Your task to perform on an android device: turn smart compose on in the gmail app Image 0: 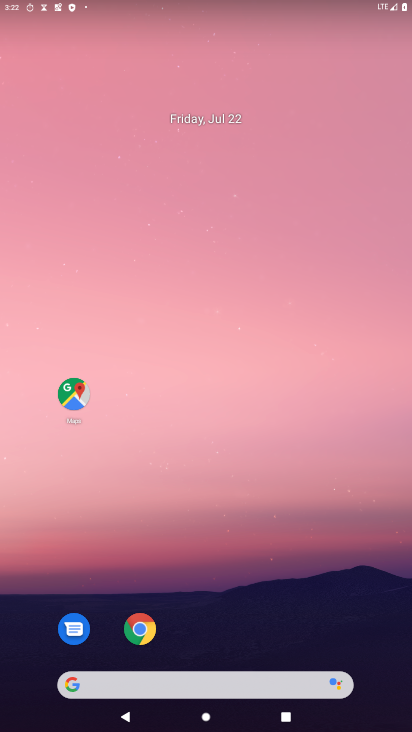
Step 0: drag from (224, 591) to (214, 14)
Your task to perform on an android device: turn smart compose on in the gmail app Image 1: 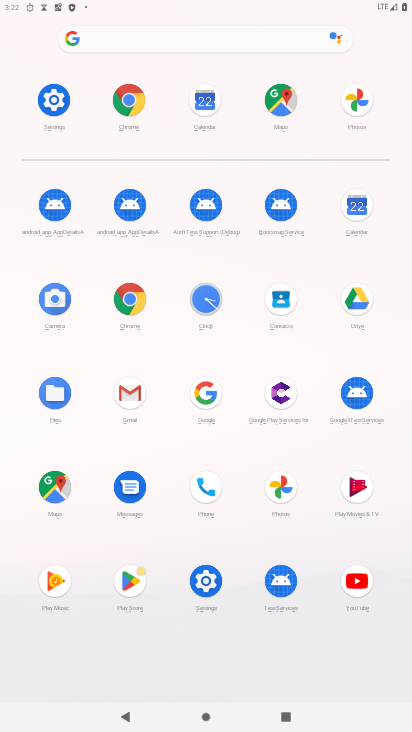
Step 1: click (138, 398)
Your task to perform on an android device: turn smart compose on in the gmail app Image 2: 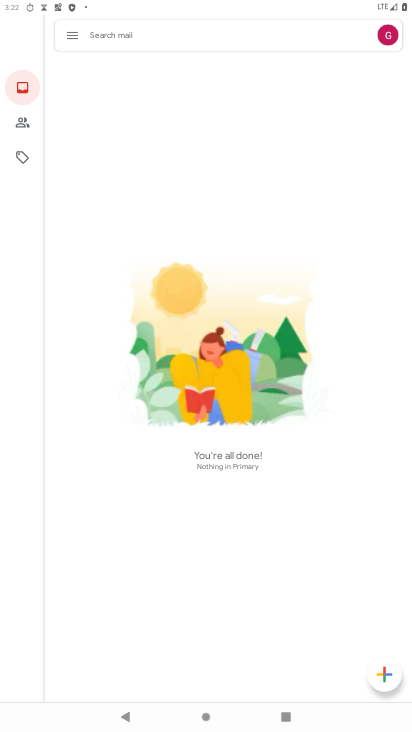
Step 2: click (66, 31)
Your task to perform on an android device: turn smart compose on in the gmail app Image 3: 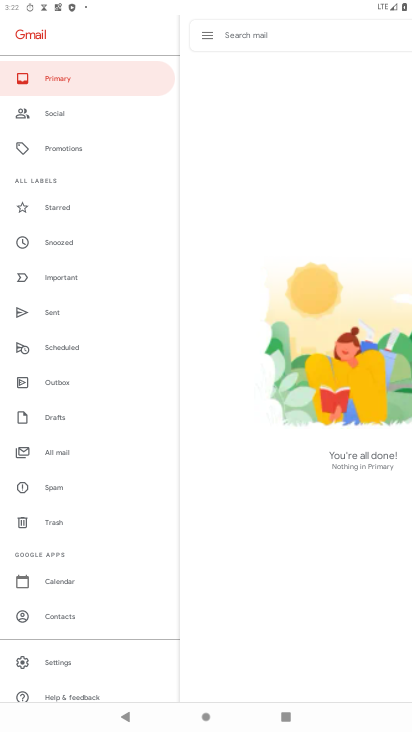
Step 3: click (61, 659)
Your task to perform on an android device: turn smart compose on in the gmail app Image 4: 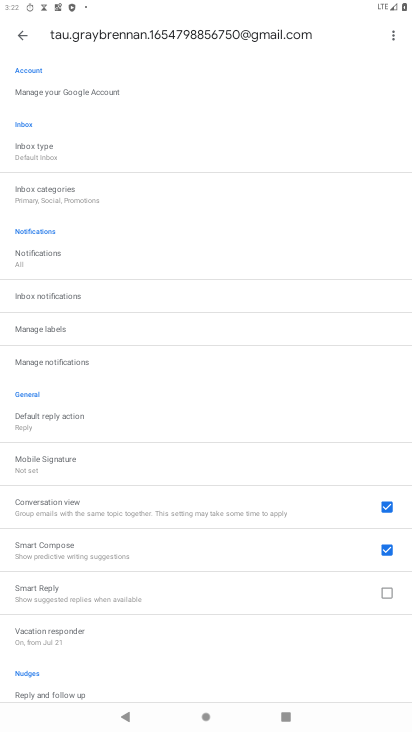
Step 4: task complete